Your task to perform on an android device: Show me recent news Image 0: 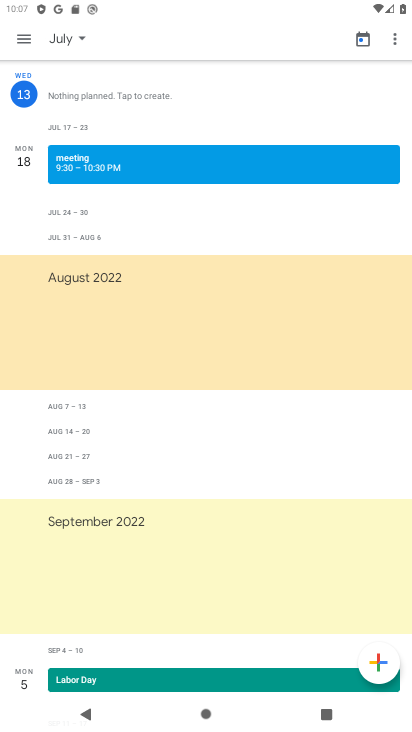
Step 0: press home button
Your task to perform on an android device: Show me recent news Image 1: 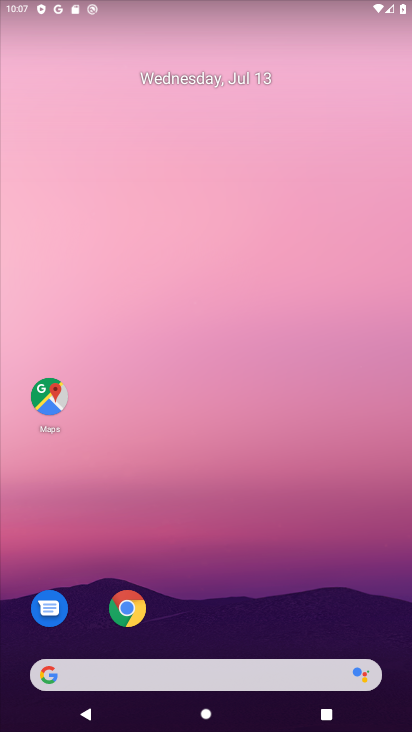
Step 1: click (151, 671)
Your task to perform on an android device: Show me recent news Image 2: 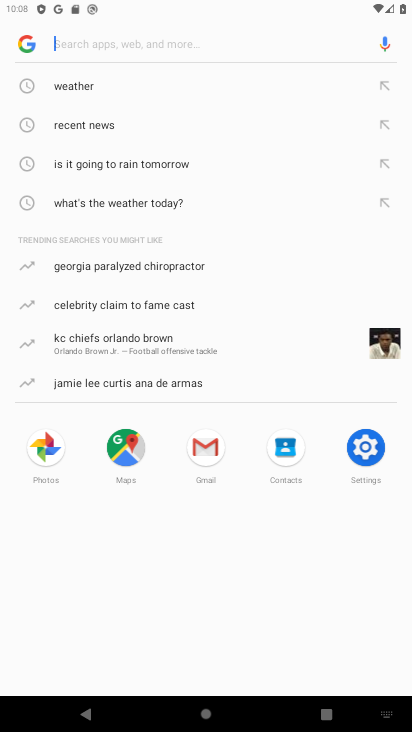
Step 2: type "recent news"
Your task to perform on an android device: Show me recent news Image 3: 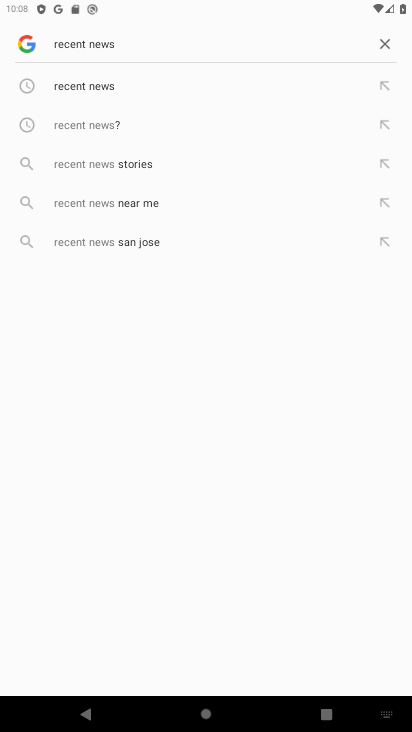
Step 3: click (107, 80)
Your task to perform on an android device: Show me recent news Image 4: 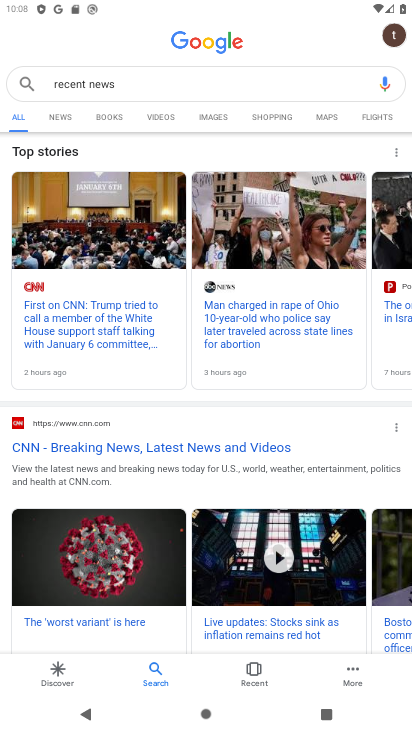
Step 4: click (62, 117)
Your task to perform on an android device: Show me recent news Image 5: 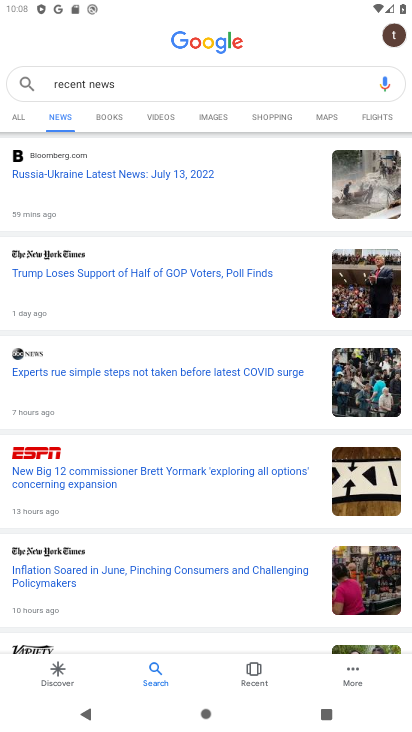
Step 5: task complete